Your task to perform on an android device: toggle priority inbox in the gmail app Image 0: 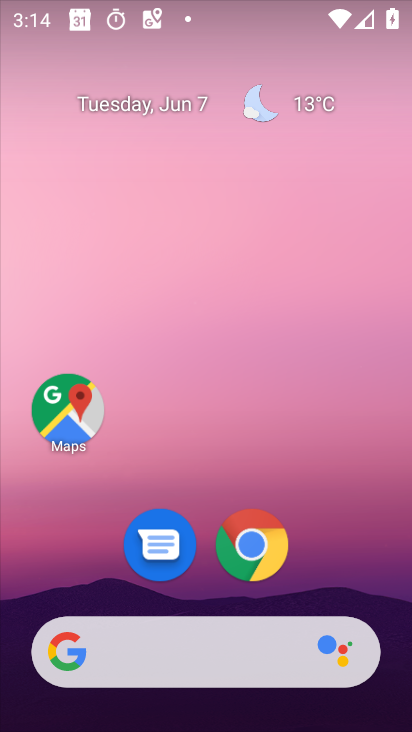
Step 0: drag from (356, 590) to (108, 3)
Your task to perform on an android device: toggle priority inbox in the gmail app Image 1: 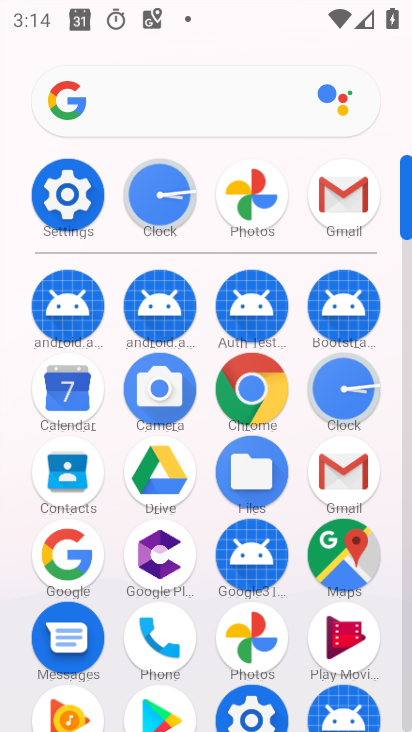
Step 1: click (347, 443)
Your task to perform on an android device: toggle priority inbox in the gmail app Image 2: 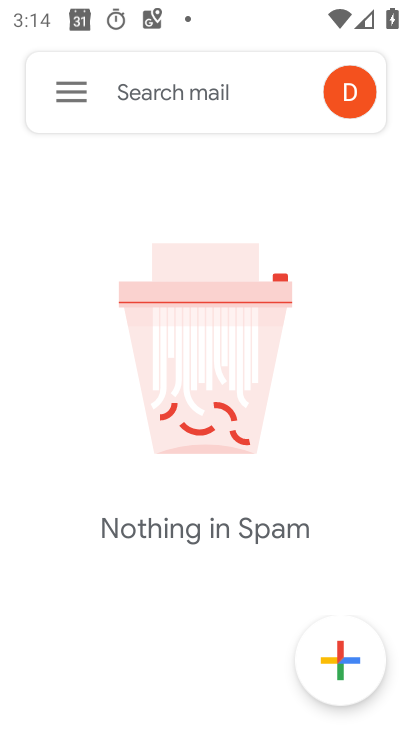
Step 2: click (91, 90)
Your task to perform on an android device: toggle priority inbox in the gmail app Image 3: 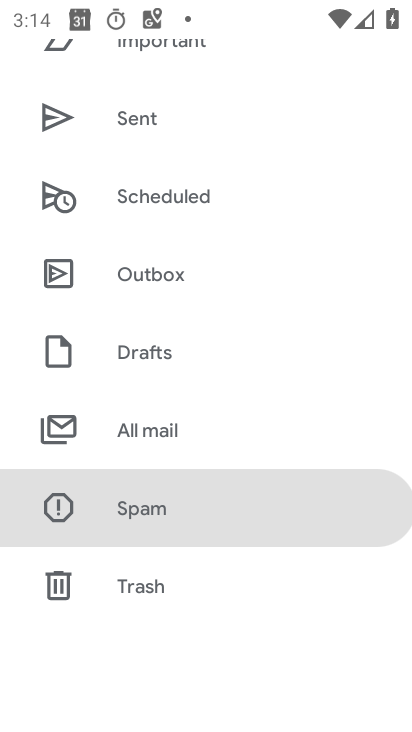
Step 3: drag from (219, 574) to (190, 60)
Your task to perform on an android device: toggle priority inbox in the gmail app Image 4: 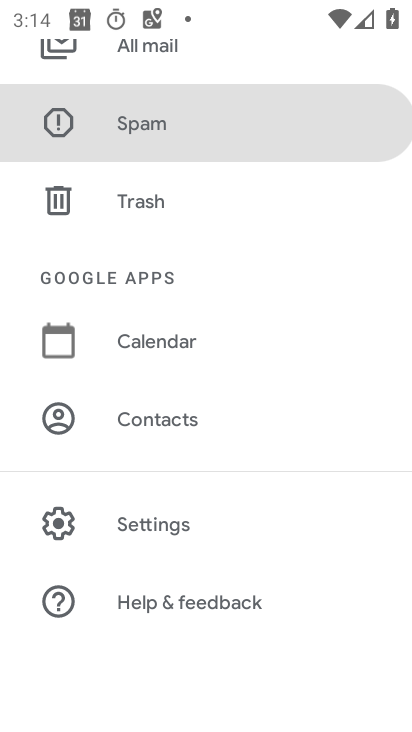
Step 4: click (178, 516)
Your task to perform on an android device: toggle priority inbox in the gmail app Image 5: 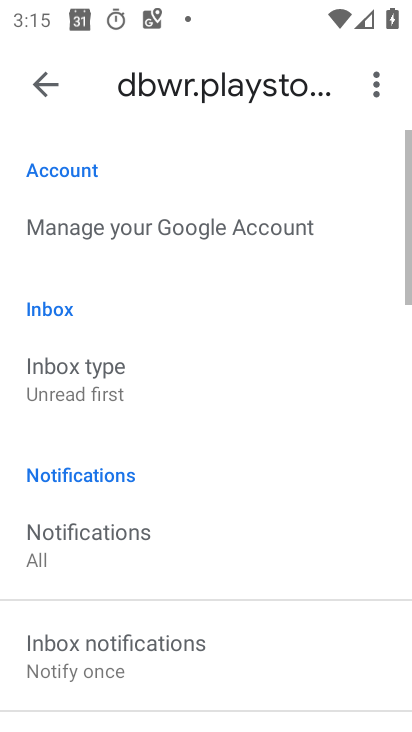
Step 5: click (77, 378)
Your task to perform on an android device: toggle priority inbox in the gmail app Image 6: 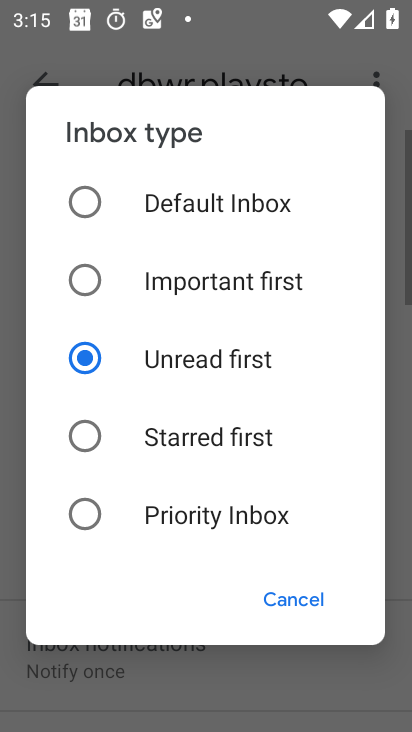
Step 6: click (121, 507)
Your task to perform on an android device: toggle priority inbox in the gmail app Image 7: 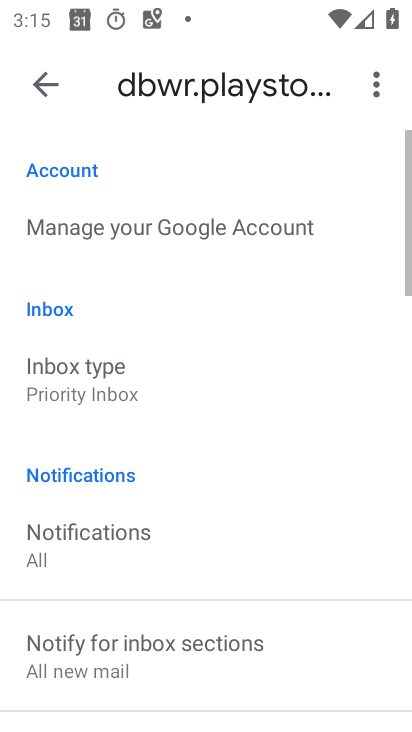
Step 7: task complete